Your task to perform on an android device: turn on notifications settings in the gmail app Image 0: 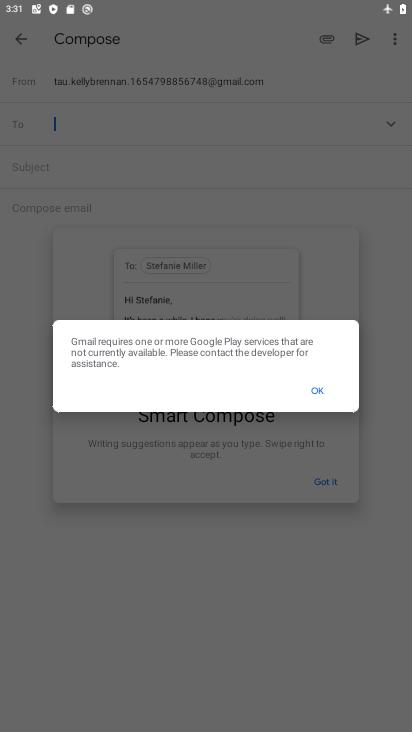
Step 0: press home button
Your task to perform on an android device: turn on notifications settings in the gmail app Image 1: 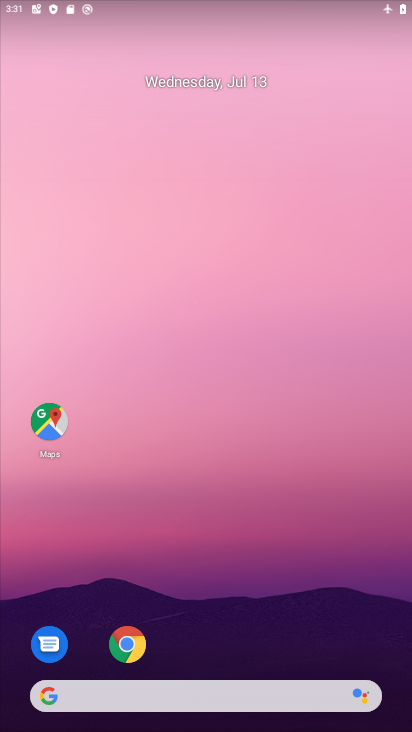
Step 1: drag from (234, 596) to (176, 82)
Your task to perform on an android device: turn on notifications settings in the gmail app Image 2: 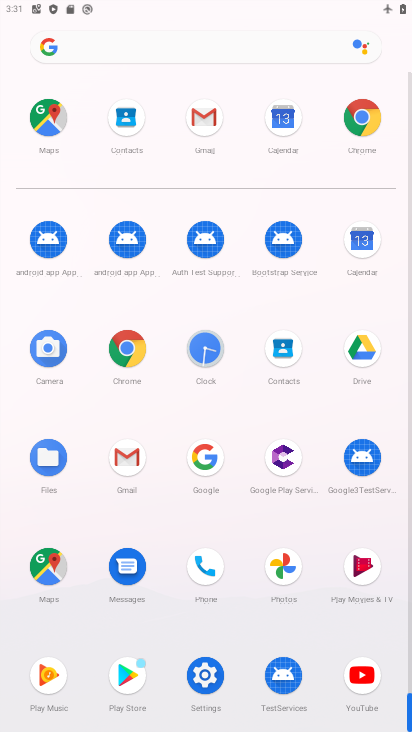
Step 2: click (207, 123)
Your task to perform on an android device: turn on notifications settings in the gmail app Image 3: 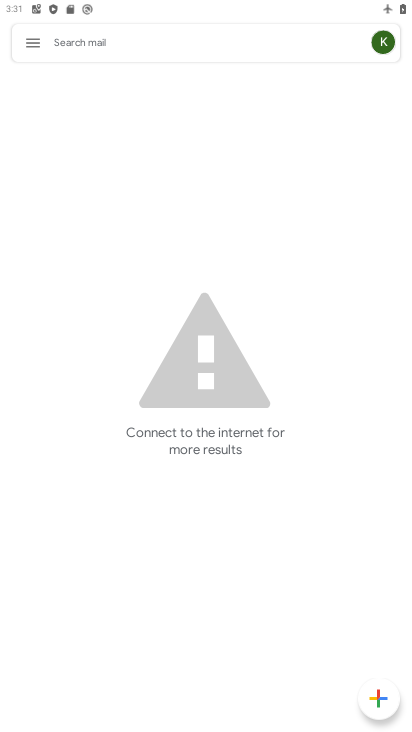
Step 3: click (35, 45)
Your task to perform on an android device: turn on notifications settings in the gmail app Image 4: 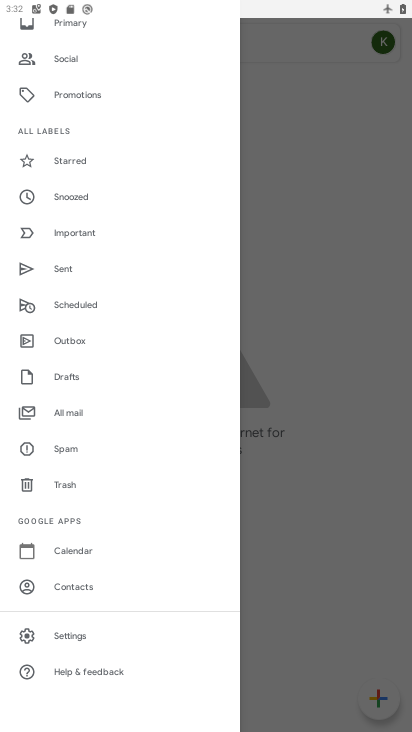
Step 4: click (103, 626)
Your task to perform on an android device: turn on notifications settings in the gmail app Image 5: 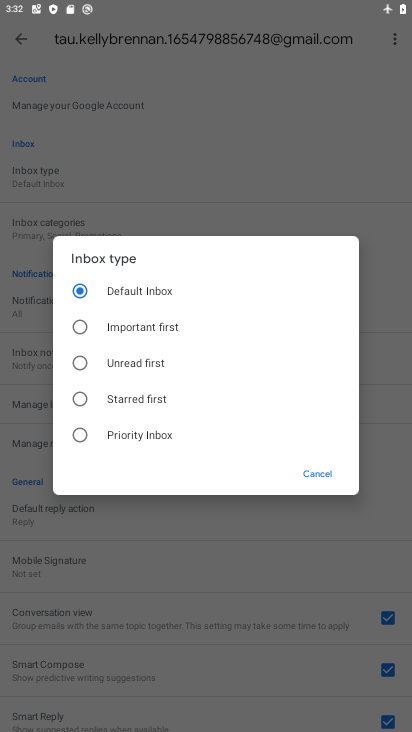
Step 5: click (329, 472)
Your task to perform on an android device: turn on notifications settings in the gmail app Image 6: 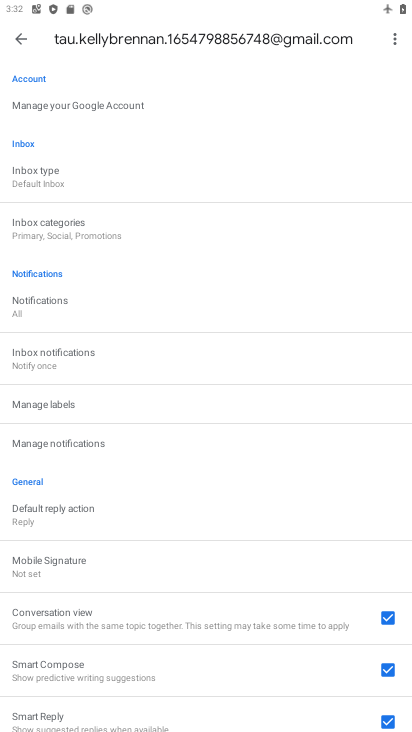
Step 6: click (73, 441)
Your task to perform on an android device: turn on notifications settings in the gmail app Image 7: 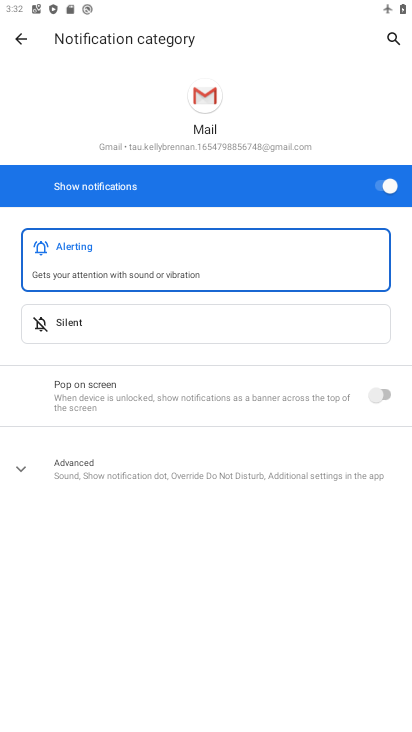
Step 7: task complete